Your task to perform on an android device: turn off data saver in the chrome app Image 0: 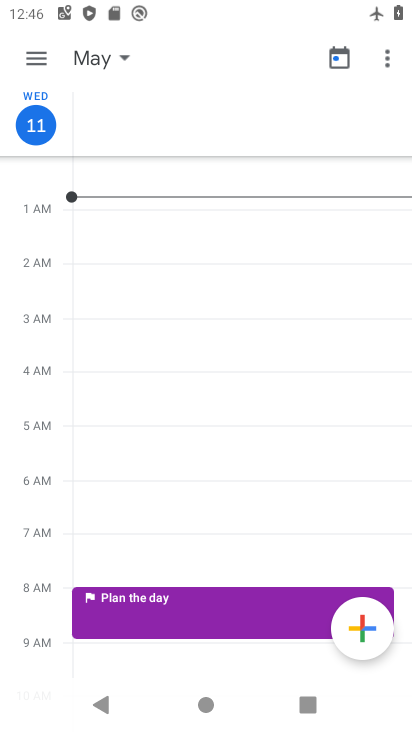
Step 0: press home button
Your task to perform on an android device: turn off data saver in the chrome app Image 1: 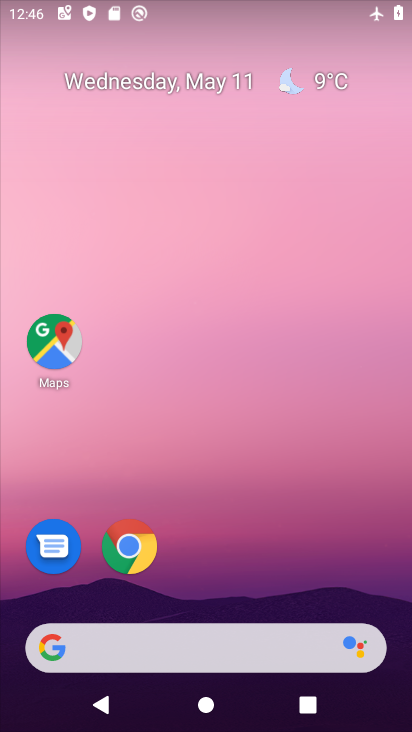
Step 1: drag from (302, 619) to (335, 63)
Your task to perform on an android device: turn off data saver in the chrome app Image 2: 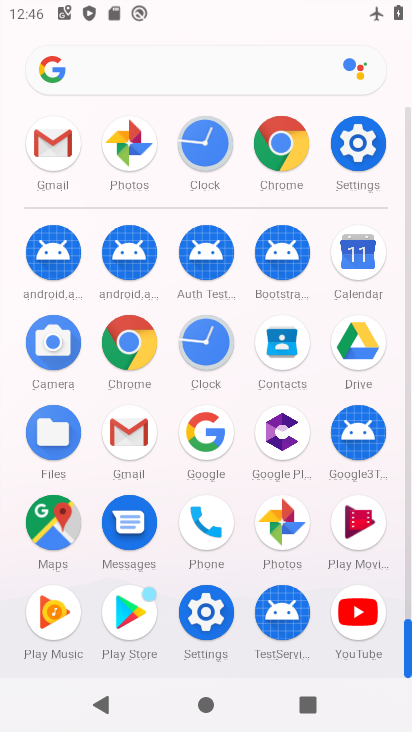
Step 2: click (342, 474)
Your task to perform on an android device: turn off data saver in the chrome app Image 3: 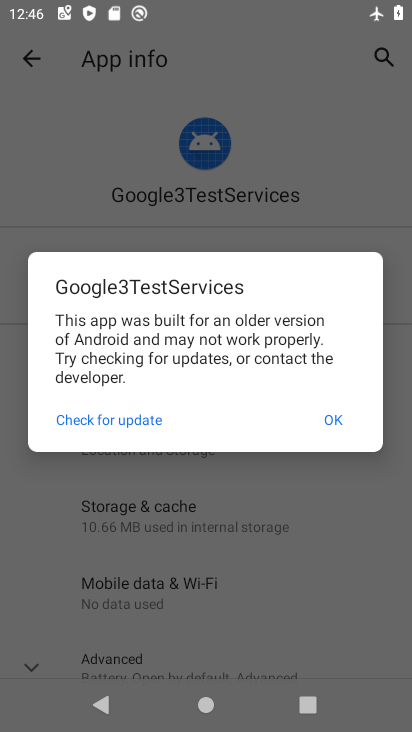
Step 3: click (340, 425)
Your task to perform on an android device: turn off data saver in the chrome app Image 4: 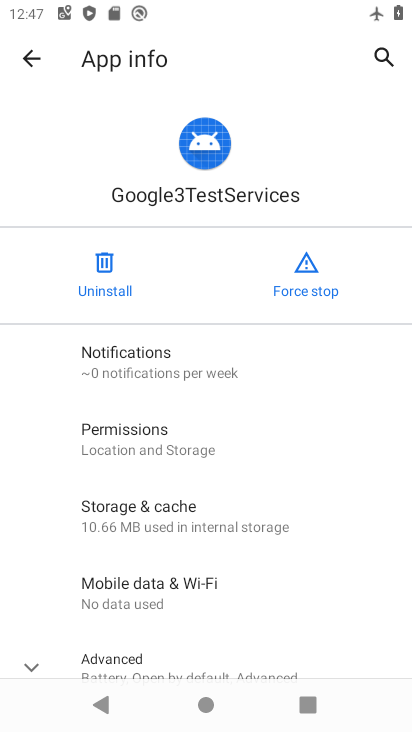
Step 4: press home button
Your task to perform on an android device: turn off data saver in the chrome app Image 5: 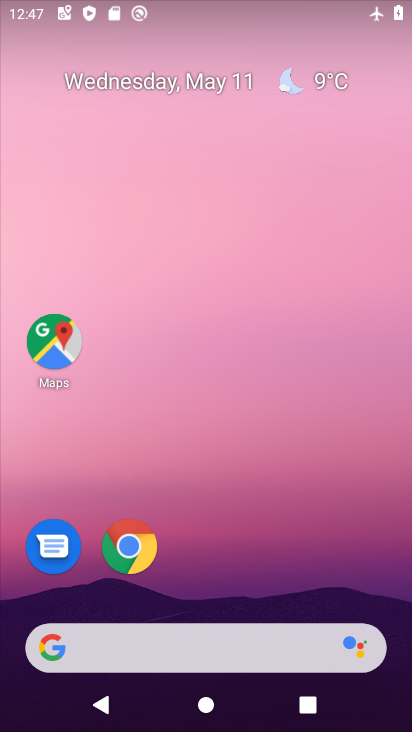
Step 5: drag from (335, 596) to (331, 3)
Your task to perform on an android device: turn off data saver in the chrome app Image 6: 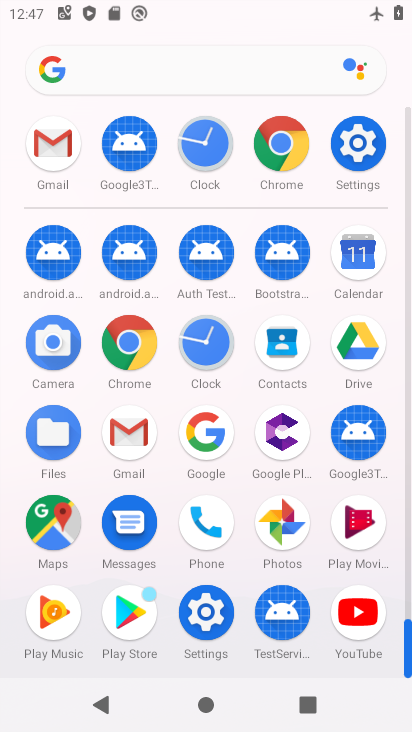
Step 6: click (139, 353)
Your task to perform on an android device: turn off data saver in the chrome app Image 7: 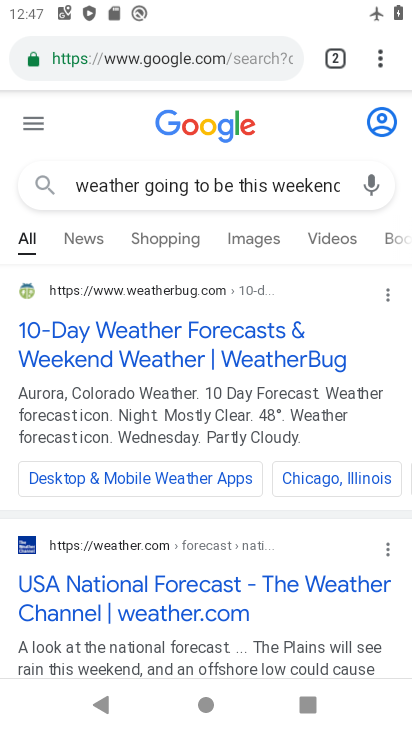
Step 7: drag from (381, 54) to (304, 608)
Your task to perform on an android device: turn off data saver in the chrome app Image 8: 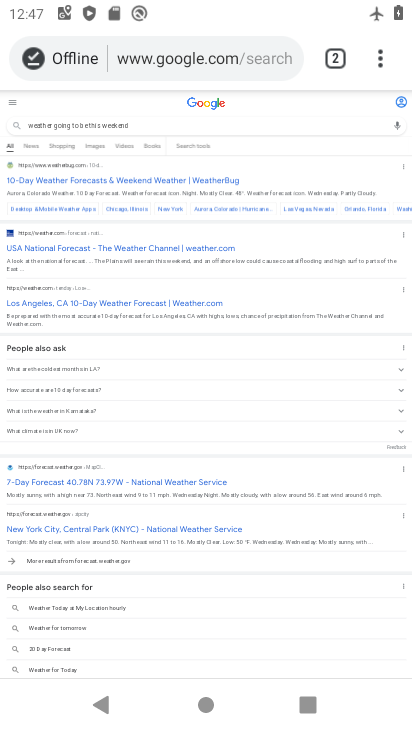
Step 8: drag from (384, 60) to (358, 347)
Your task to perform on an android device: turn off data saver in the chrome app Image 9: 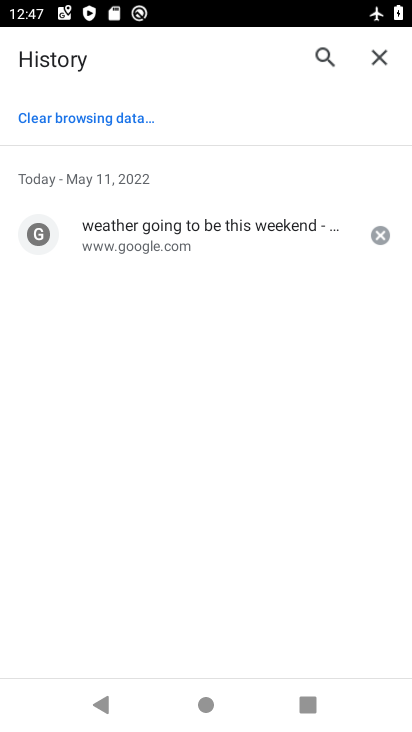
Step 9: drag from (276, 571) to (285, 164)
Your task to perform on an android device: turn off data saver in the chrome app Image 10: 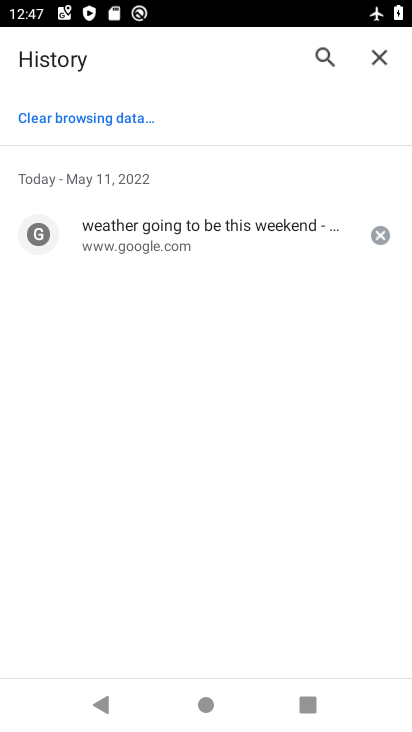
Step 10: click (372, 54)
Your task to perform on an android device: turn off data saver in the chrome app Image 11: 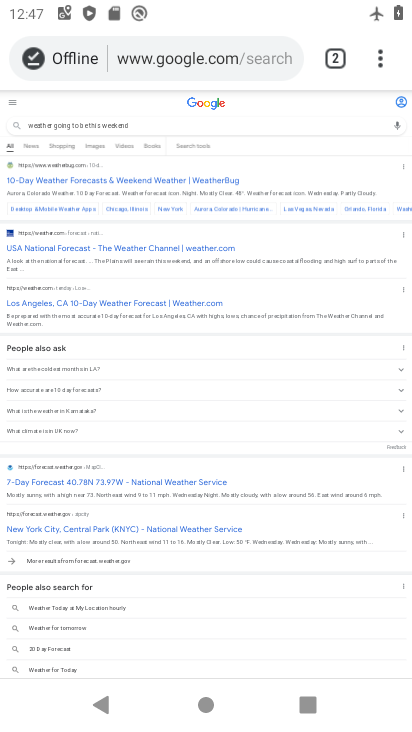
Step 11: click (379, 57)
Your task to perform on an android device: turn off data saver in the chrome app Image 12: 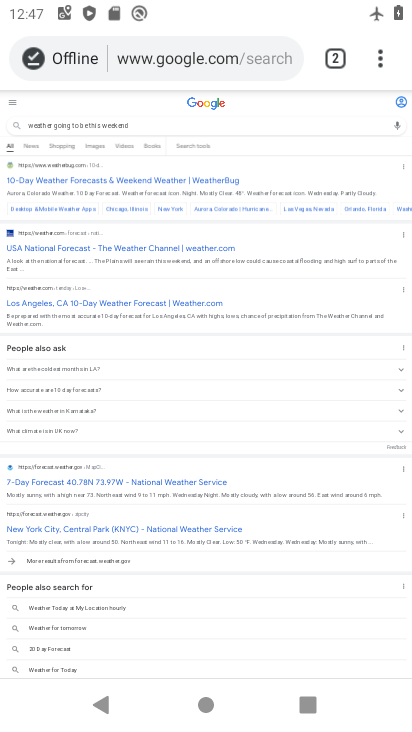
Step 12: click (385, 47)
Your task to perform on an android device: turn off data saver in the chrome app Image 13: 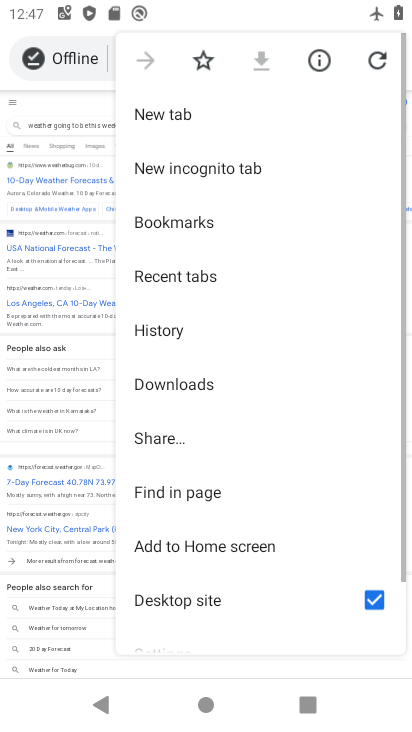
Step 13: drag from (256, 535) to (299, 113)
Your task to perform on an android device: turn off data saver in the chrome app Image 14: 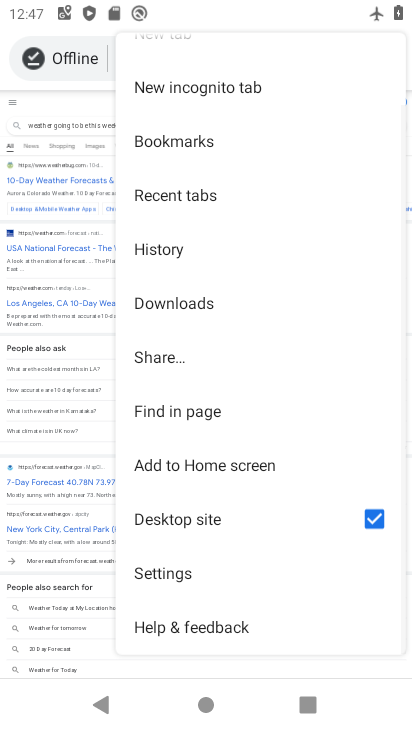
Step 14: click (220, 579)
Your task to perform on an android device: turn off data saver in the chrome app Image 15: 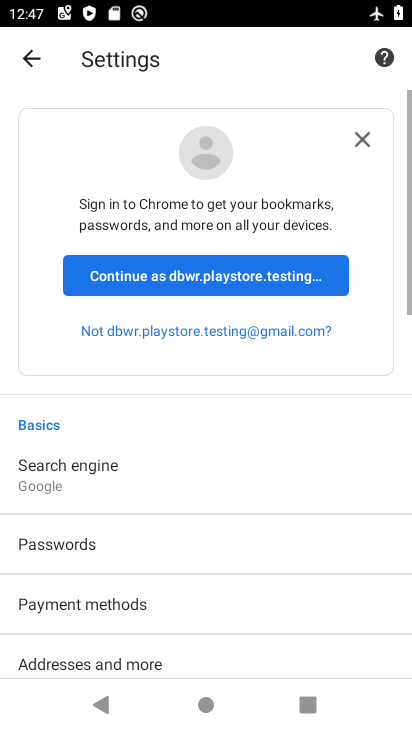
Step 15: drag from (242, 603) to (260, 121)
Your task to perform on an android device: turn off data saver in the chrome app Image 16: 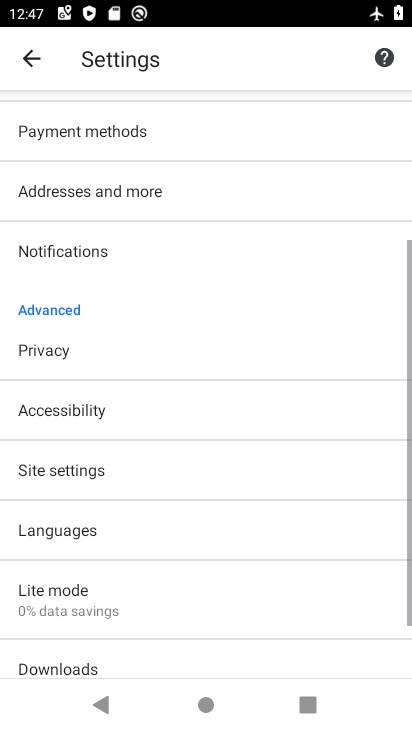
Step 16: click (215, 620)
Your task to perform on an android device: turn off data saver in the chrome app Image 17: 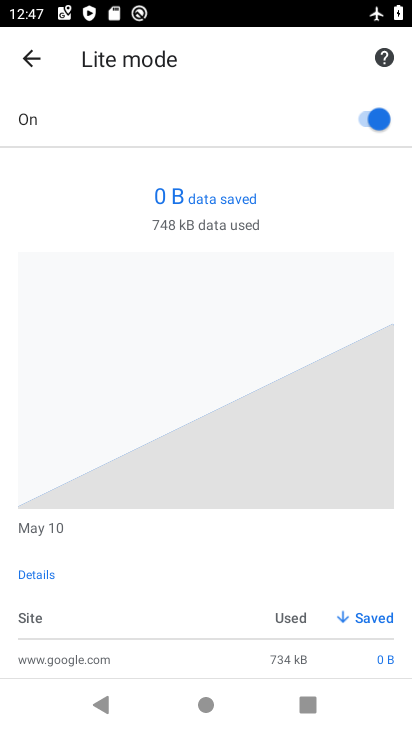
Step 17: click (370, 114)
Your task to perform on an android device: turn off data saver in the chrome app Image 18: 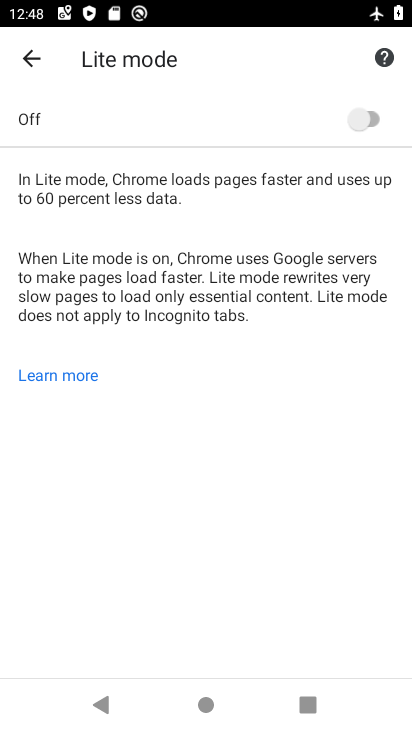
Step 18: task complete